Your task to perform on an android device: toggle data saver in the chrome app Image 0: 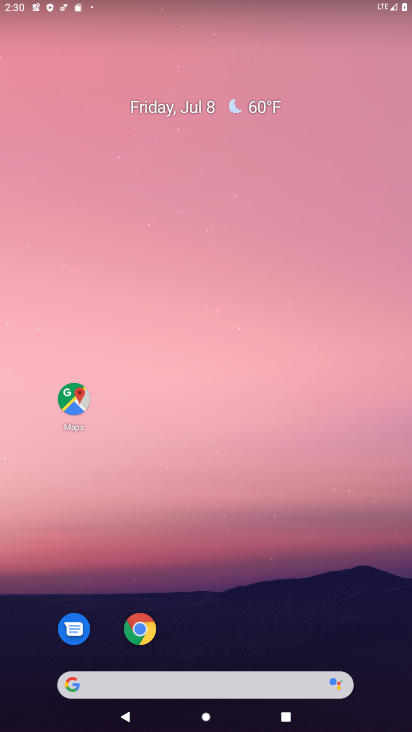
Step 0: click (141, 626)
Your task to perform on an android device: toggle data saver in the chrome app Image 1: 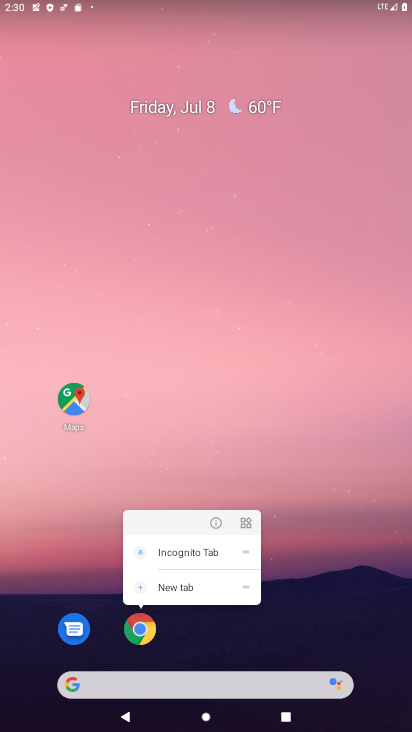
Step 1: click (145, 636)
Your task to perform on an android device: toggle data saver in the chrome app Image 2: 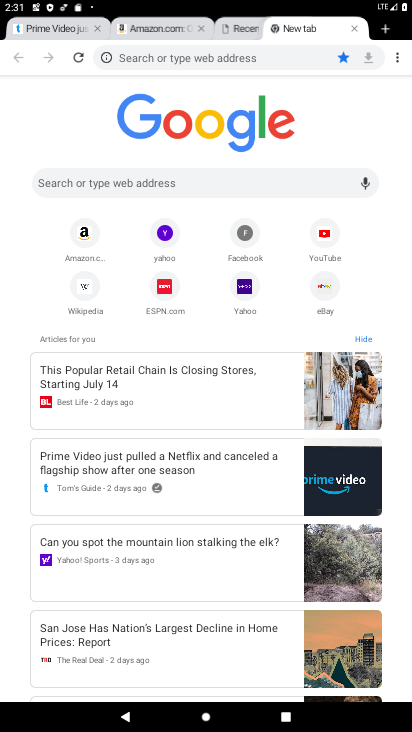
Step 2: click (395, 55)
Your task to perform on an android device: toggle data saver in the chrome app Image 3: 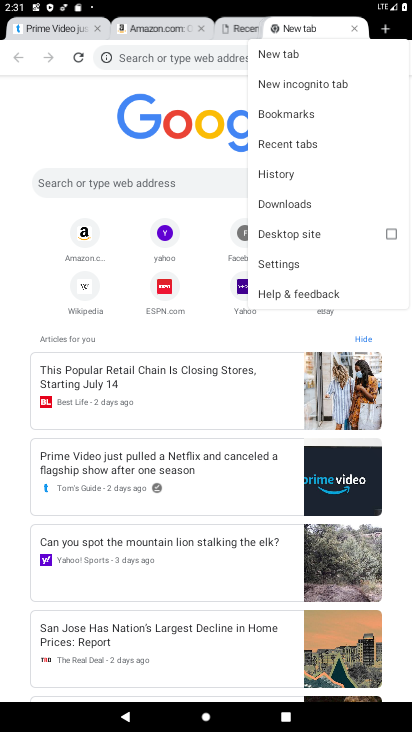
Step 3: click (287, 263)
Your task to perform on an android device: toggle data saver in the chrome app Image 4: 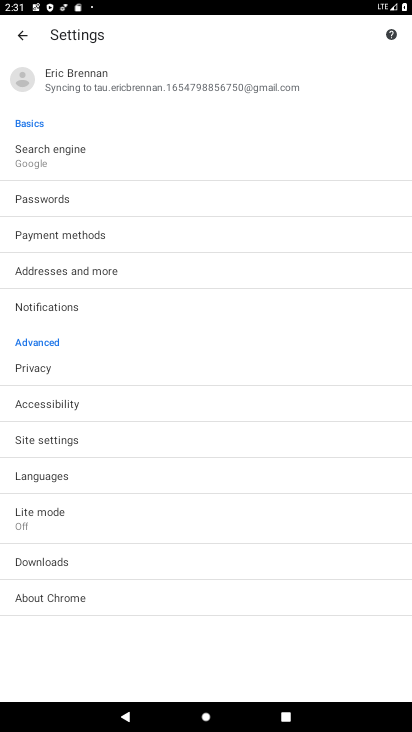
Step 4: click (85, 439)
Your task to perform on an android device: toggle data saver in the chrome app Image 5: 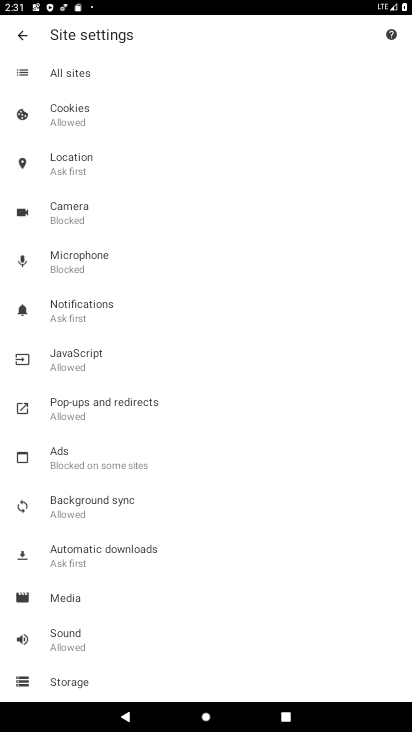
Step 5: click (19, 38)
Your task to perform on an android device: toggle data saver in the chrome app Image 6: 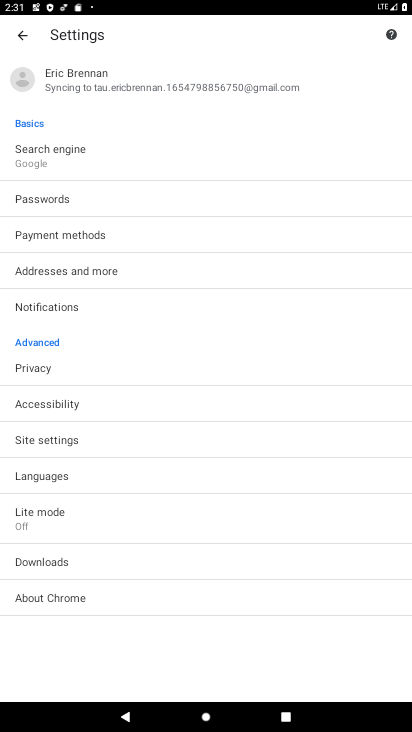
Step 6: click (37, 526)
Your task to perform on an android device: toggle data saver in the chrome app Image 7: 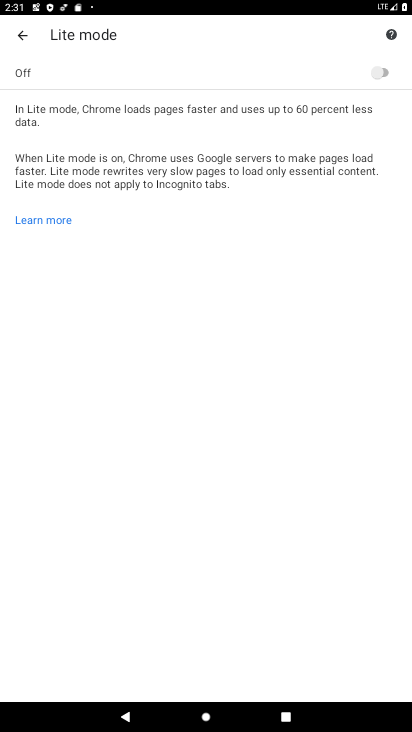
Step 7: click (393, 74)
Your task to perform on an android device: toggle data saver in the chrome app Image 8: 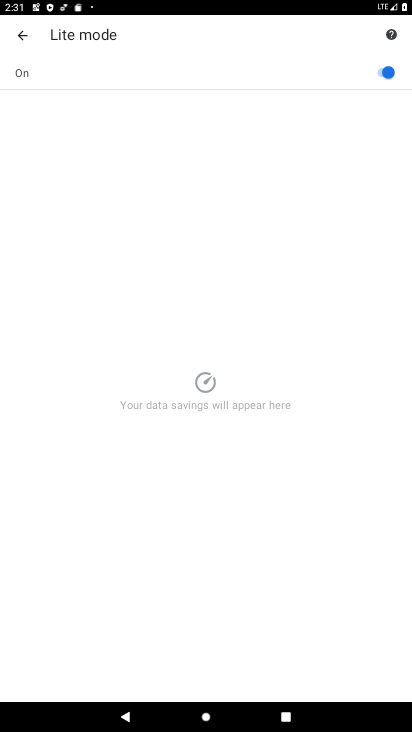
Step 8: task complete